Your task to perform on an android device: turn on airplane mode Image 0: 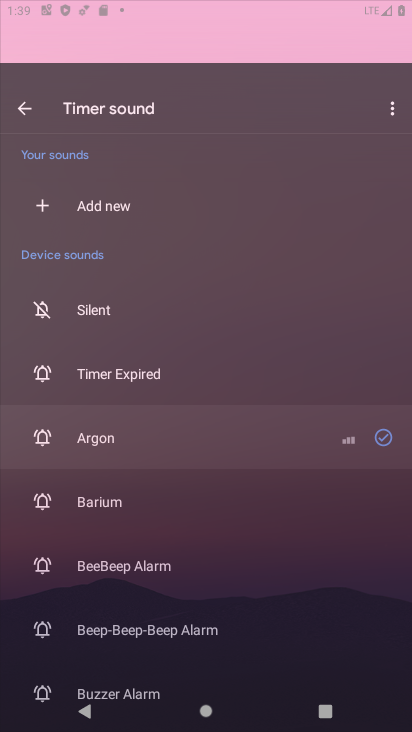
Step 0: press home button
Your task to perform on an android device: turn on airplane mode Image 1: 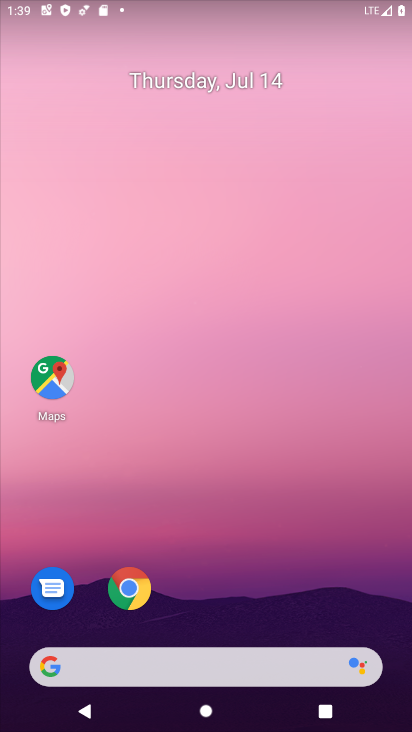
Step 1: drag from (272, 583) to (341, 156)
Your task to perform on an android device: turn on airplane mode Image 2: 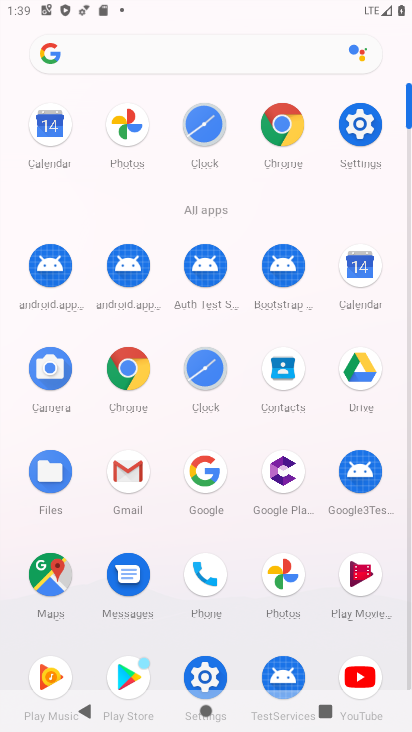
Step 2: click (358, 132)
Your task to perform on an android device: turn on airplane mode Image 3: 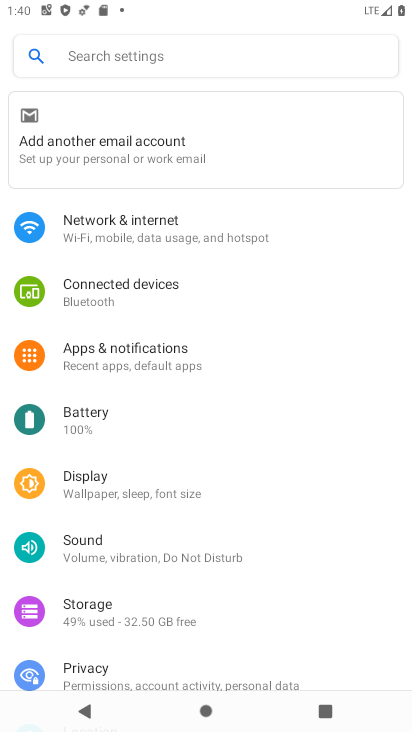
Step 3: click (214, 225)
Your task to perform on an android device: turn on airplane mode Image 4: 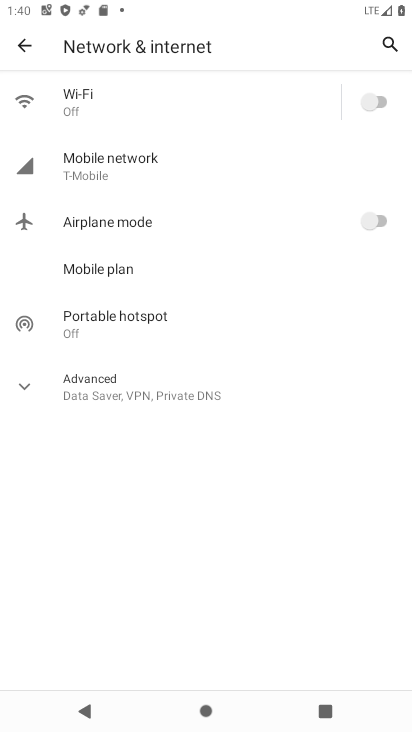
Step 4: click (377, 214)
Your task to perform on an android device: turn on airplane mode Image 5: 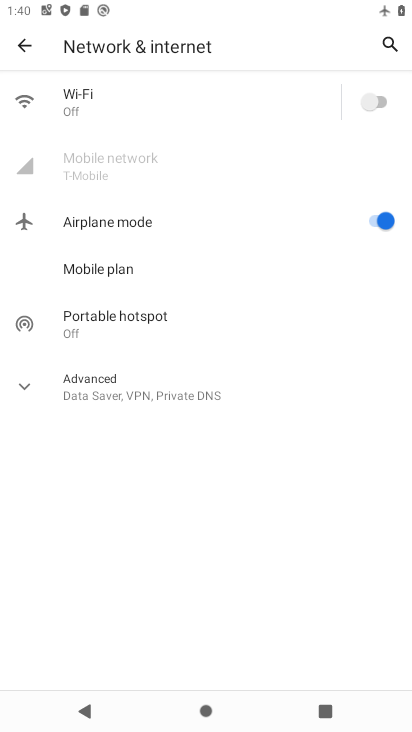
Step 5: task complete